Your task to perform on an android device: move an email to a new category in the gmail app Image 0: 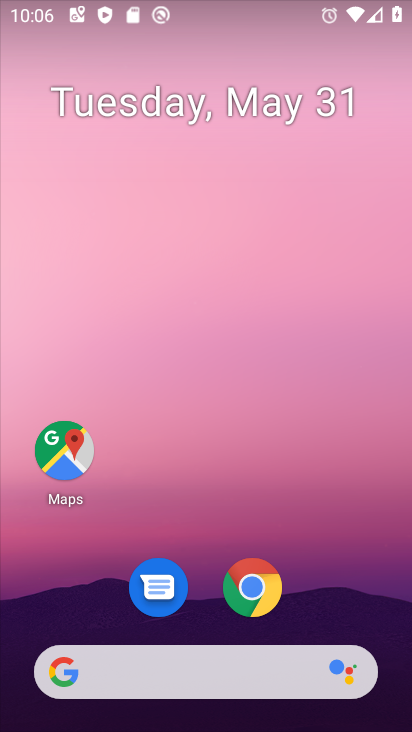
Step 0: drag from (347, 585) to (373, 161)
Your task to perform on an android device: move an email to a new category in the gmail app Image 1: 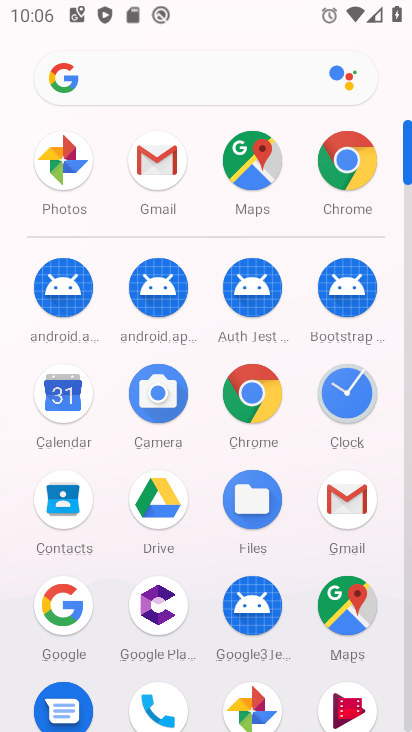
Step 1: click (349, 500)
Your task to perform on an android device: move an email to a new category in the gmail app Image 2: 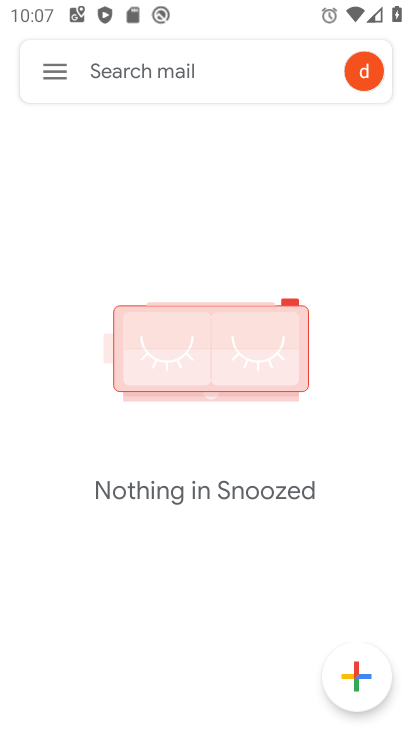
Step 2: click (77, 58)
Your task to perform on an android device: move an email to a new category in the gmail app Image 3: 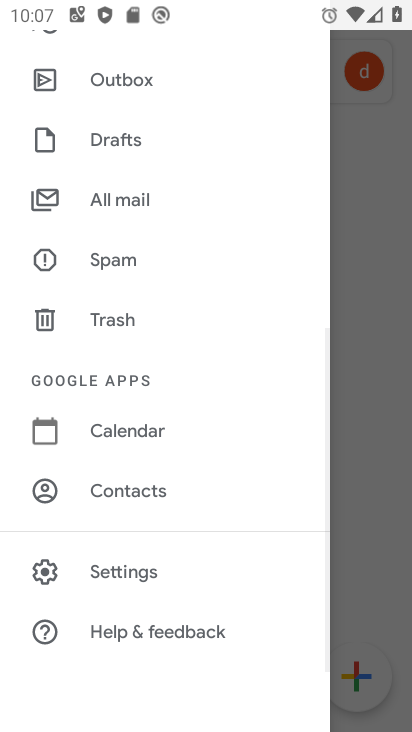
Step 3: drag from (214, 207) to (210, 309)
Your task to perform on an android device: move an email to a new category in the gmail app Image 4: 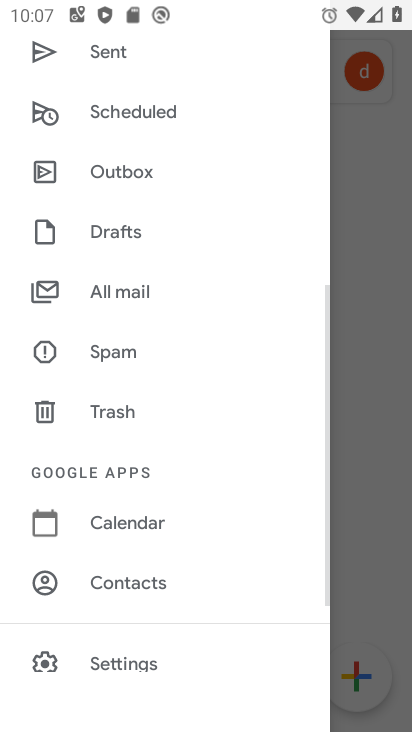
Step 4: drag from (224, 204) to (219, 302)
Your task to perform on an android device: move an email to a new category in the gmail app Image 5: 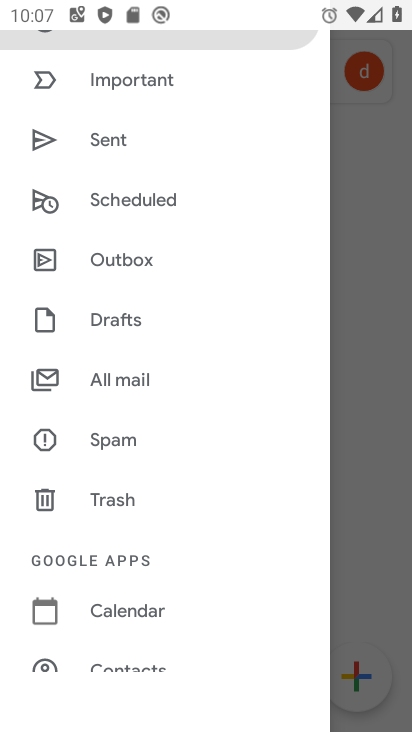
Step 5: drag from (235, 187) to (238, 277)
Your task to perform on an android device: move an email to a new category in the gmail app Image 6: 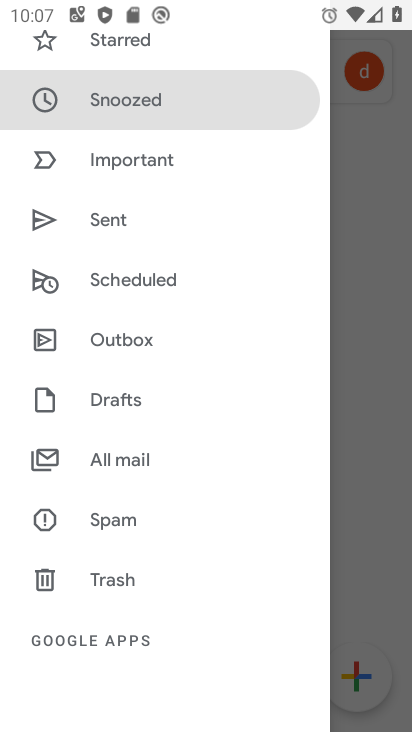
Step 6: drag from (234, 159) to (236, 258)
Your task to perform on an android device: move an email to a new category in the gmail app Image 7: 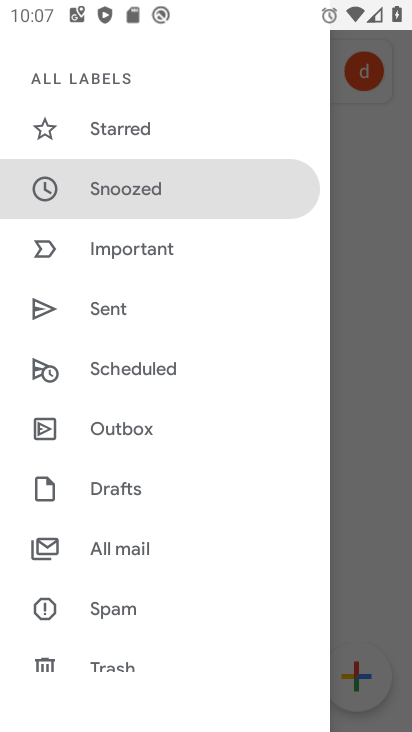
Step 7: drag from (223, 117) to (236, 233)
Your task to perform on an android device: move an email to a new category in the gmail app Image 8: 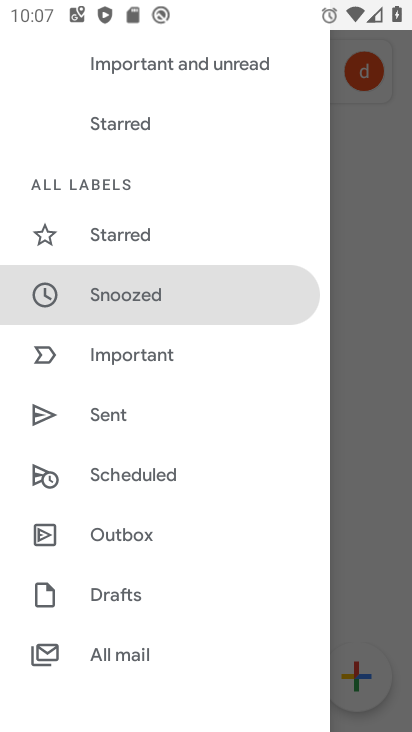
Step 8: drag from (227, 123) to (234, 235)
Your task to perform on an android device: move an email to a new category in the gmail app Image 9: 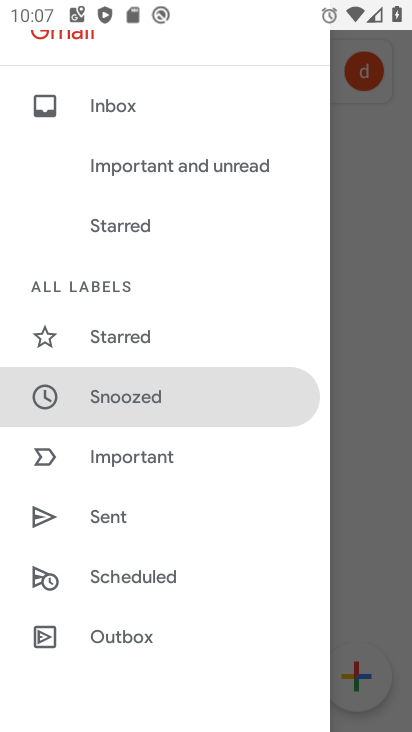
Step 9: drag from (220, 134) to (225, 240)
Your task to perform on an android device: move an email to a new category in the gmail app Image 10: 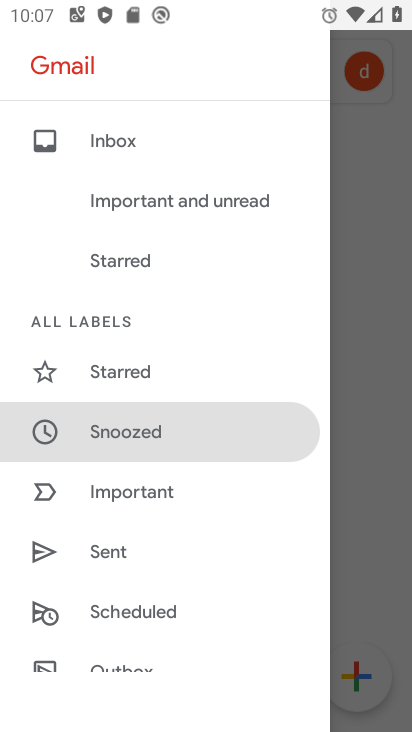
Step 10: click (170, 155)
Your task to perform on an android device: move an email to a new category in the gmail app Image 11: 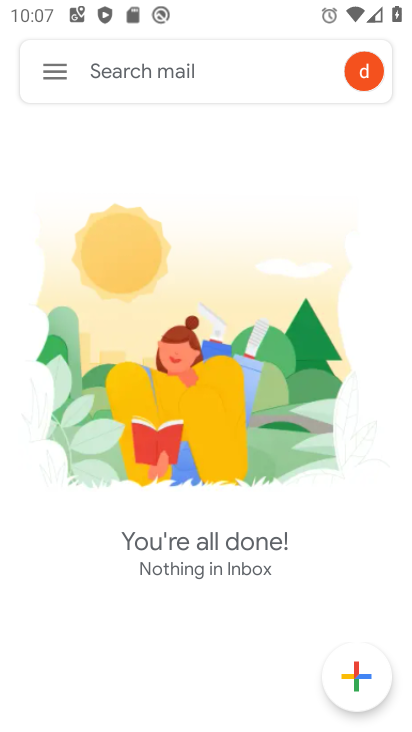
Step 11: task complete